Your task to perform on an android device: check battery use Image 0: 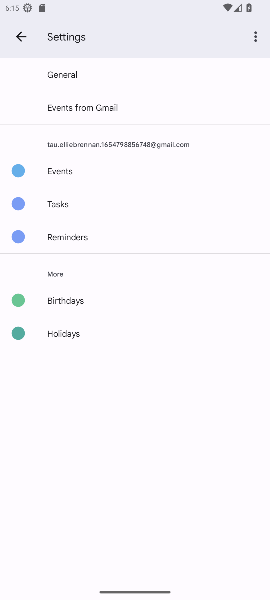
Step 0: press home button
Your task to perform on an android device: check battery use Image 1: 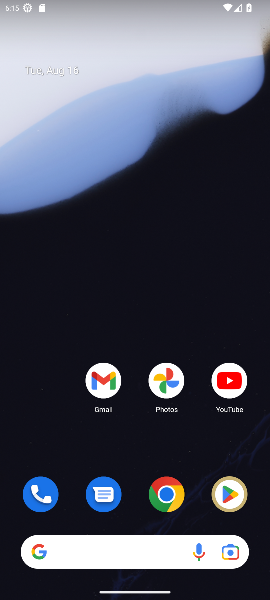
Step 1: drag from (47, 414) to (68, 106)
Your task to perform on an android device: check battery use Image 2: 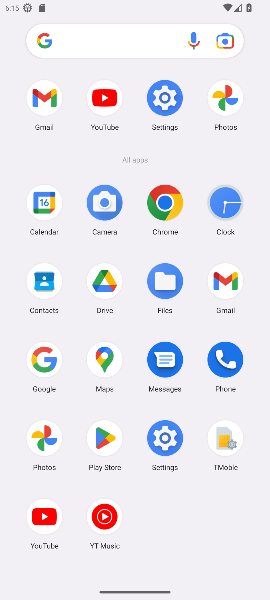
Step 2: click (167, 445)
Your task to perform on an android device: check battery use Image 3: 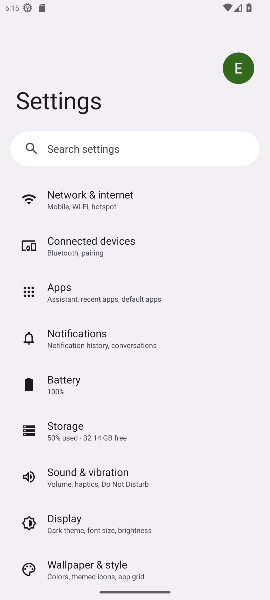
Step 3: task complete